Your task to perform on an android device: Open Youtube and go to "Your channel" Image 0: 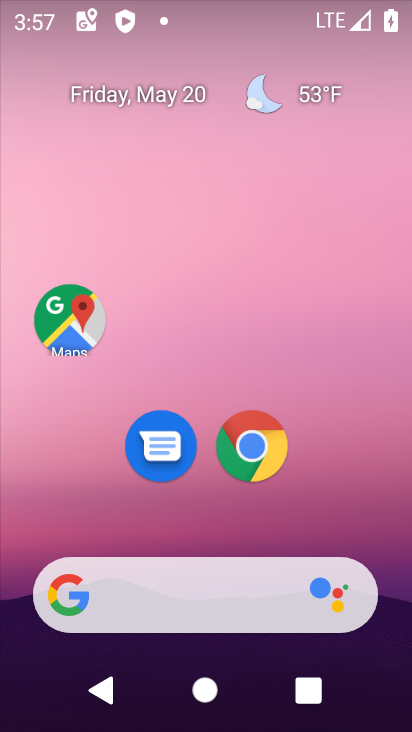
Step 0: drag from (326, 472) to (409, 41)
Your task to perform on an android device: Open Youtube and go to "Your channel" Image 1: 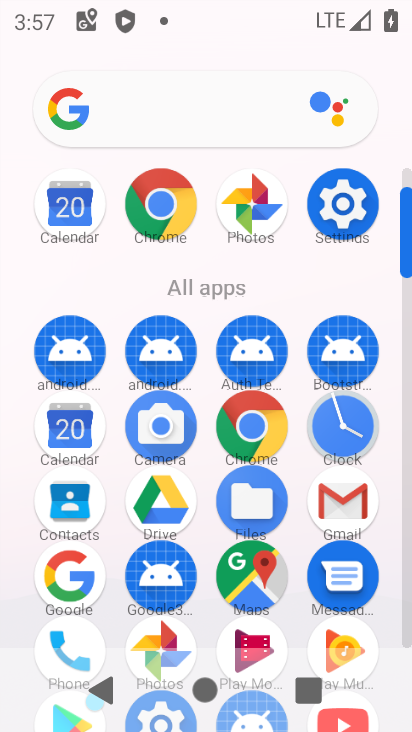
Step 1: drag from (395, 551) to (410, 217)
Your task to perform on an android device: Open Youtube and go to "Your channel" Image 2: 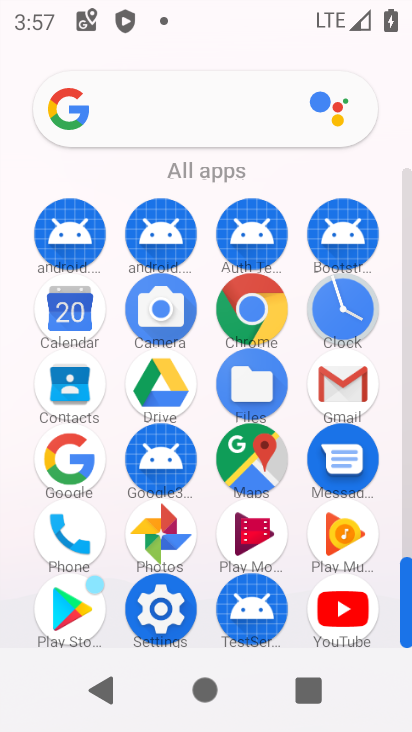
Step 2: click (411, 333)
Your task to perform on an android device: Open Youtube and go to "Your channel" Image 3: 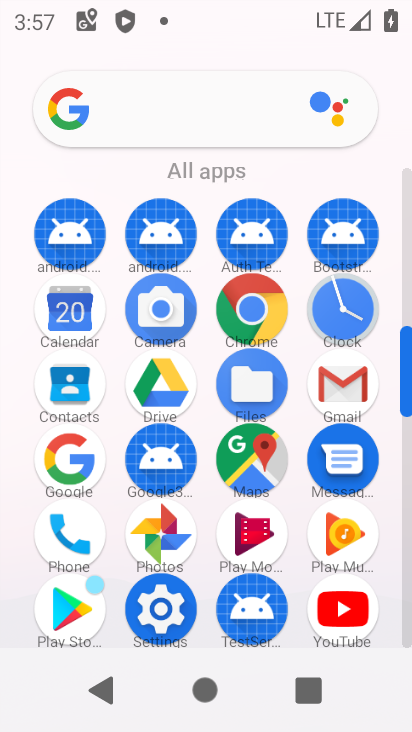
Step 3: click (346, 611)
Your task to perform on an android device: Open Youtube and go to "Your channel" Image 4: 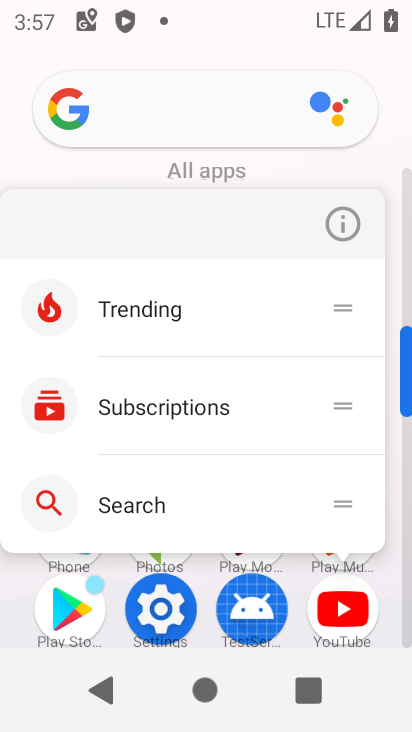
Step 4: click (323, 605)
Your task to perform on an android device: Open Youtube and go to "Your channel" Image 5: 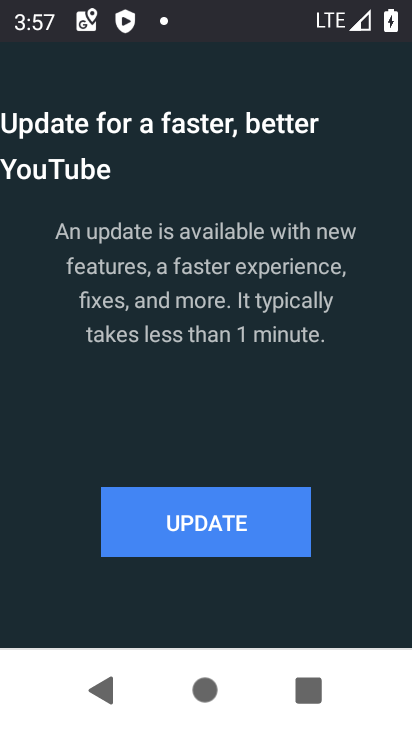
Step 5: click (227, 491)
Your task to perform on an android device: Open Youtube and go to "Your channel" Image 6: 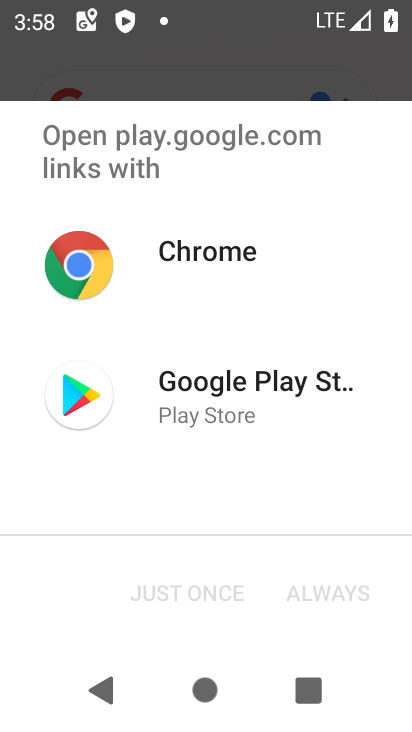
Step 6: click (186, 401)
Your task to perform on an android device: Open Youtube and go to "Your channel" Image 7: 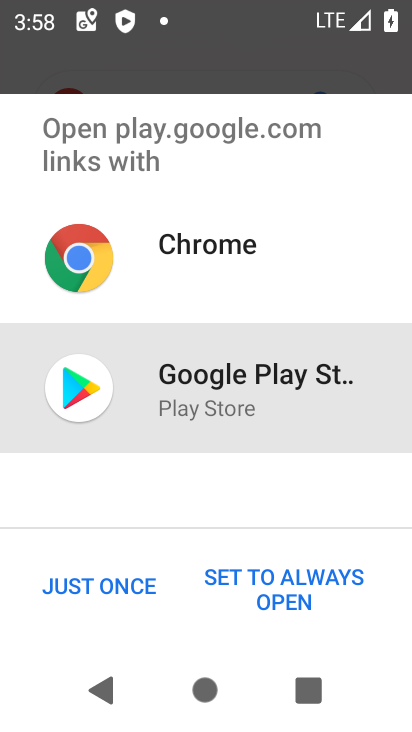
Step 7: click (82, 607)
Your task to perform on an android device: Open Youtube and go to "Your channel" Image 8: 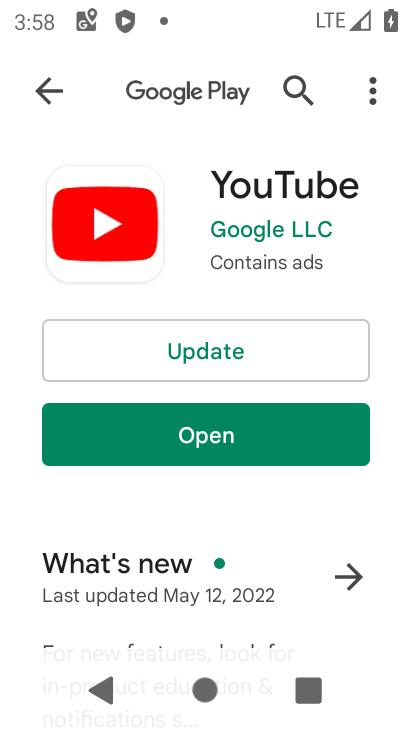
Step 8: click (243, 345)
Your task to perform on an android device: Open Youtube and go to "Your channel" Image 9: 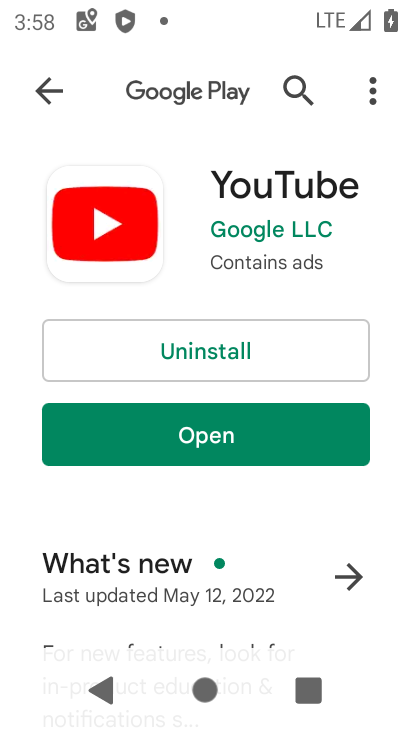
Step 9: click (218, 444)
Your task to perform on an android device: Open Youtube and go to "Your channel" Image 10: 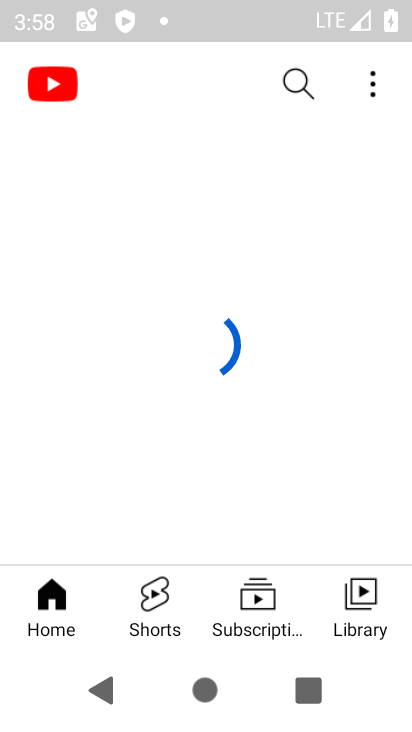
Step 10: task complete